Your task to perform on an android device: Clear the cart on amazon. Image 0: 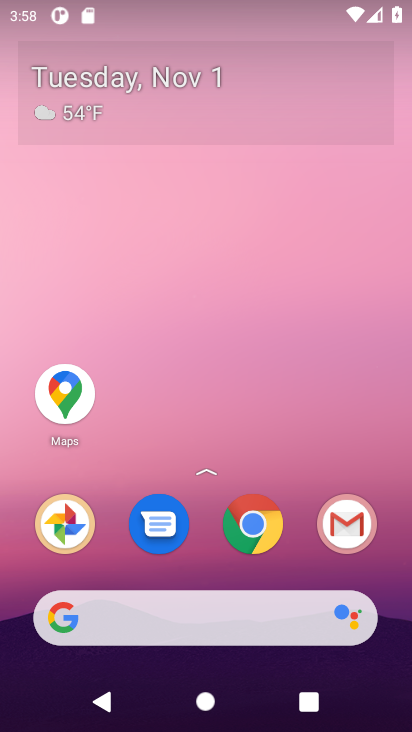
Step 0: click (256, 513)
Your task to perform on an android device: Clear the cart on amazon. Image 1: 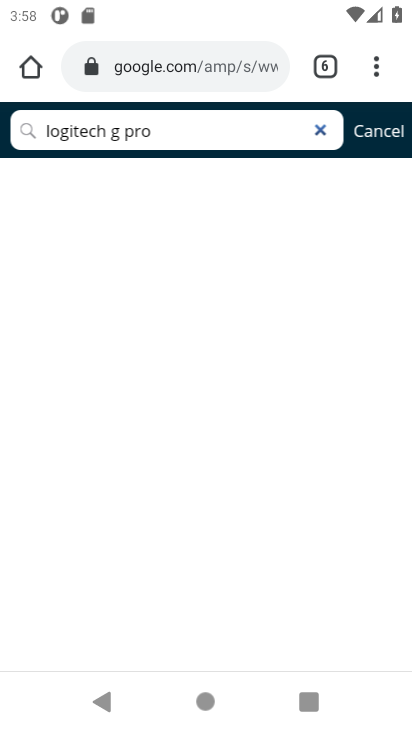
Step 1: click (158, 47)
Your task to perform on an android device: Clear the cart on amazon. Image 2: 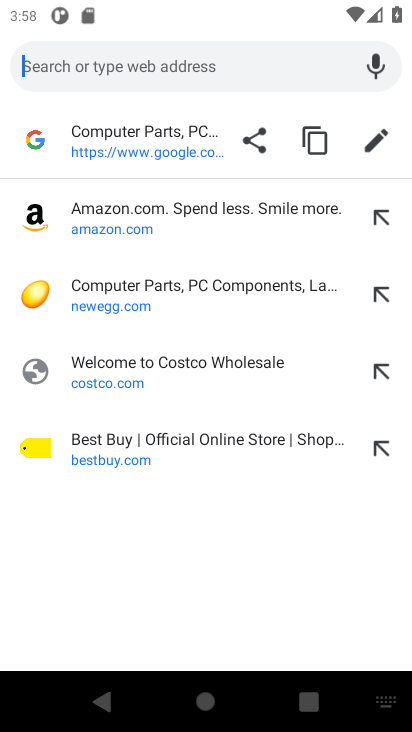
Step 2: click (107, 201)
Your task to perform on an android device: Clear the cart on amazon. Image 3: 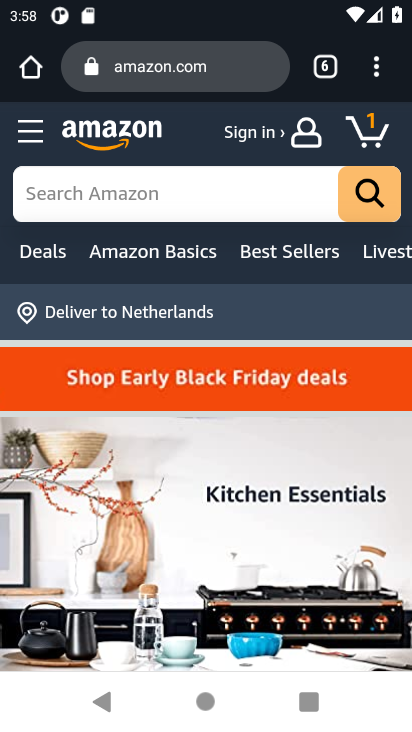
Step 3: click (369, 125)
Your task to perform on an android device: Clear the cart on amazon. Image 4: 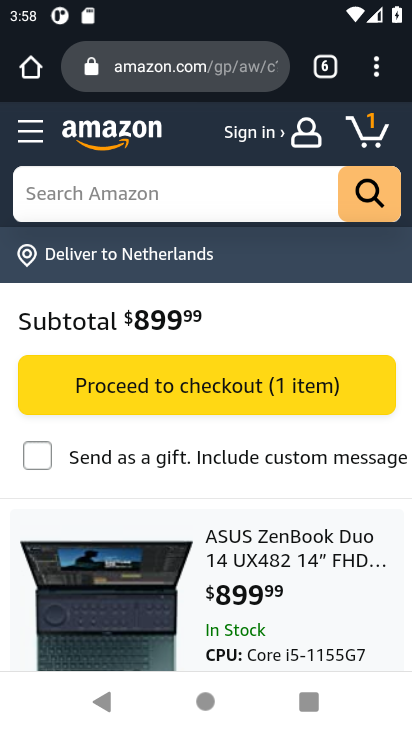
Step 4: drag from (255, 486) to (236, 104)
Your task to perform on an android device: Clear the cart on amazon. Image 5: 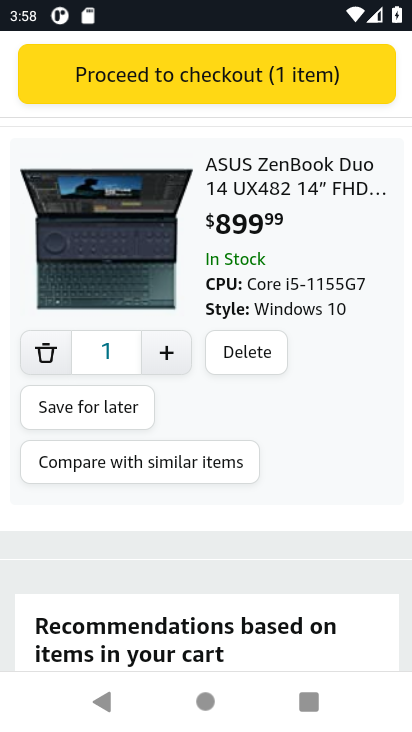
Step 5: click (41, 349)
Your task to perform on an android device: Clear the cart on amazon. Image 6: 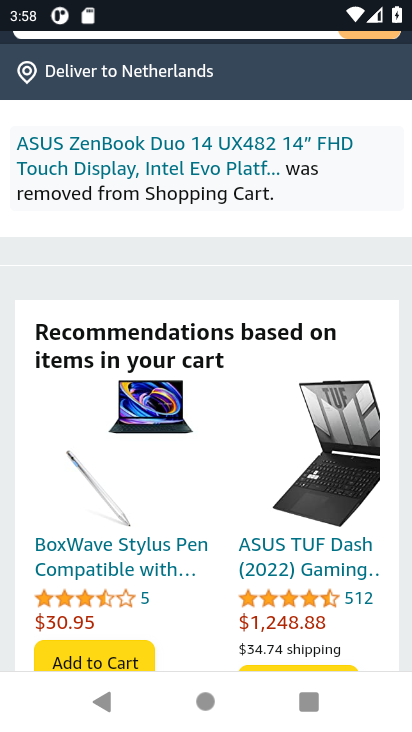
Step 6: task complete